Your task to perform on an android device: delete the emails in spam in the gmail app Image 0: 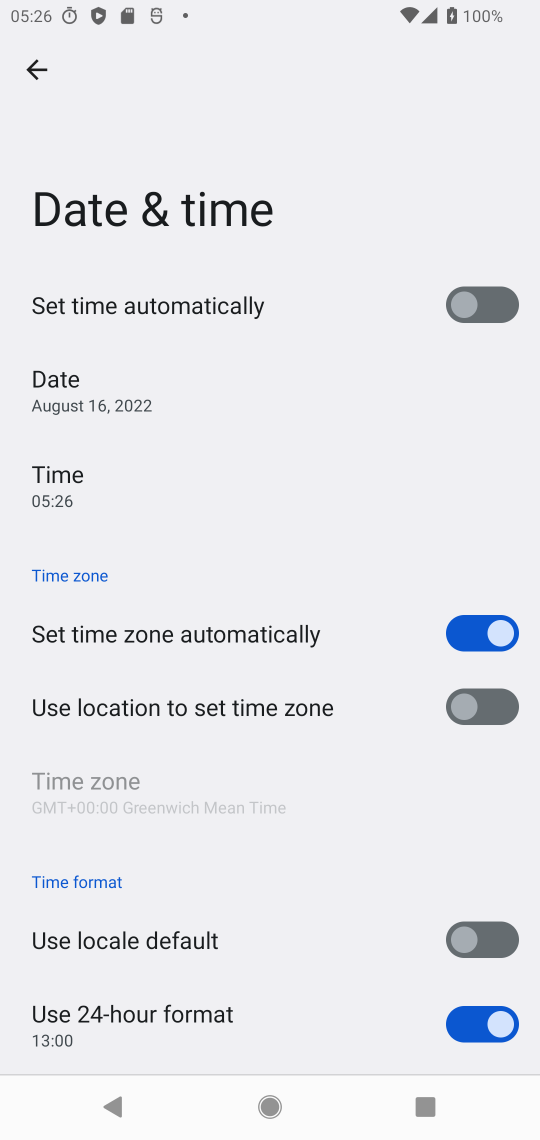
Step 0: press home button
Your task to perform on an android device: delete the emails in spam in the gmail app Image 1: 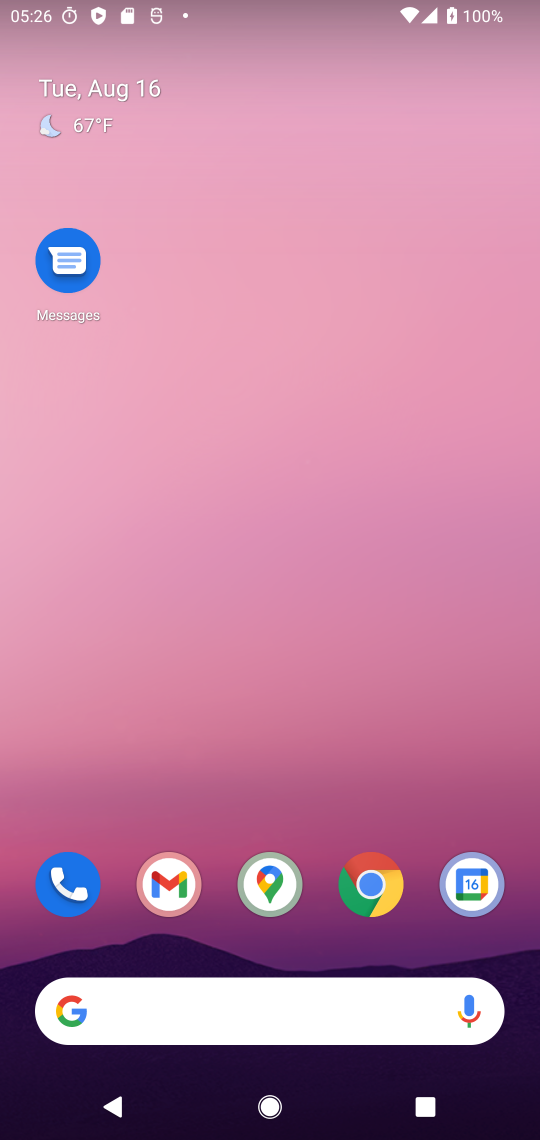
Step 1: click (164, 910)
Your task to perform on an android device: delete the emails in spam in the gmail app Image 2: 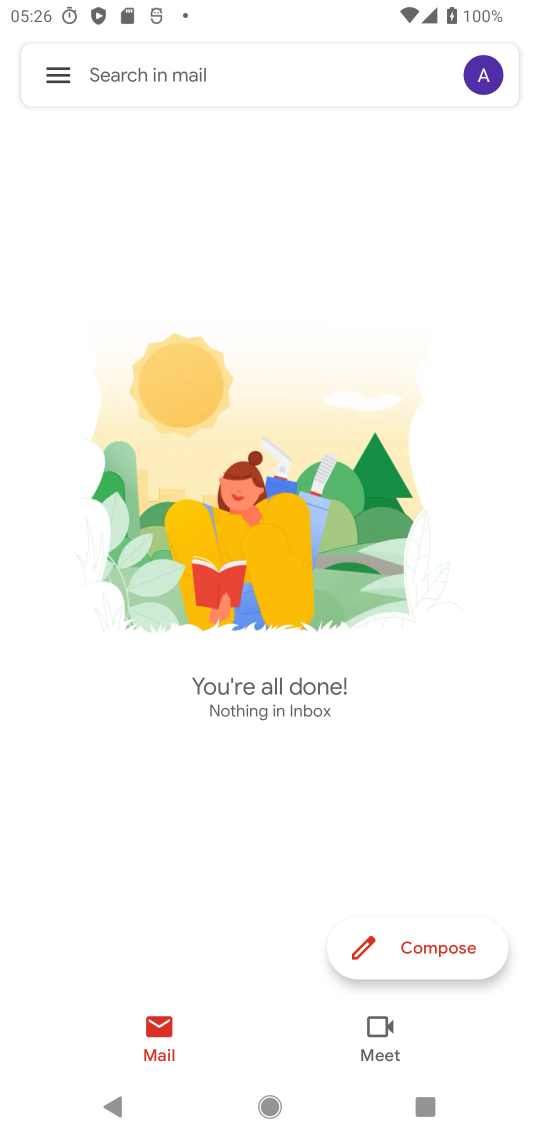
Step 2: click (45, 75)
Your task to perform on an android device: delete the emails in spam in the gmail app Image 3: 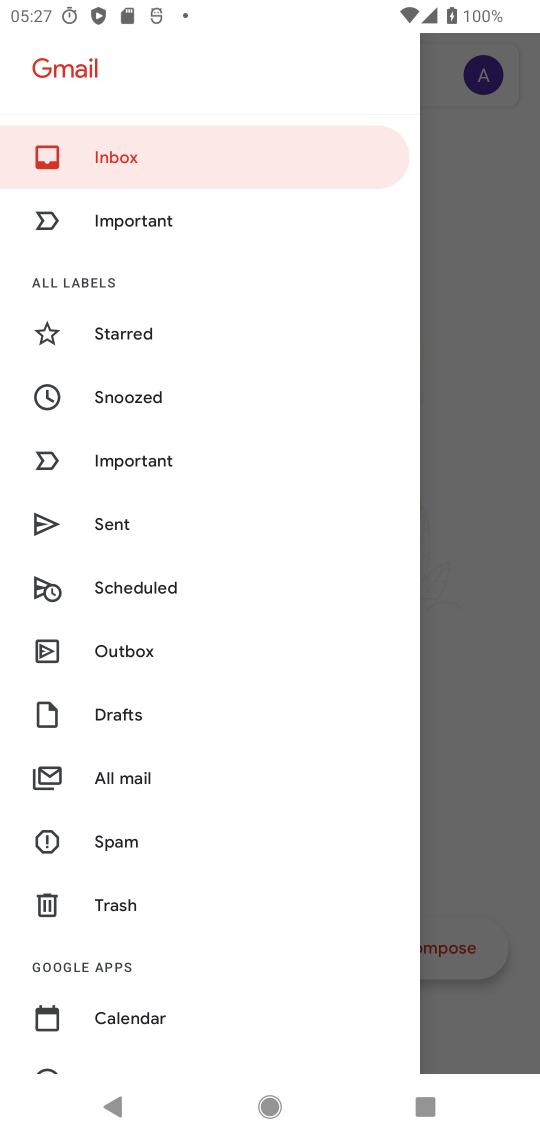
Step 3: click (121, 845)
Your task to perform on an android device: delete the emails in spam in the gmail app Image 4: 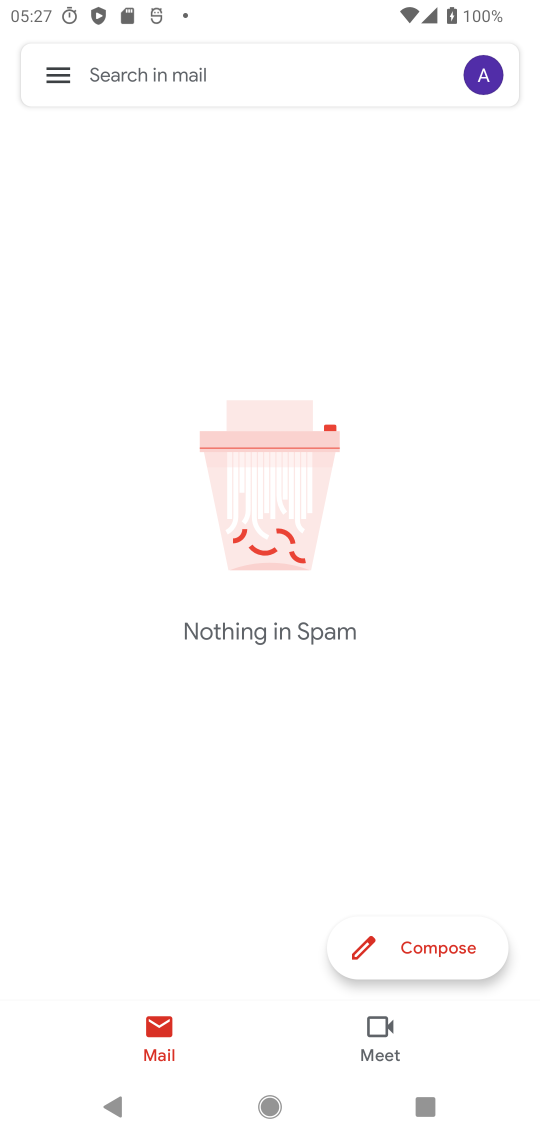
Step 4: task complete